Your task to perform on an android device: turn off data saver in the chrome app Image 0: 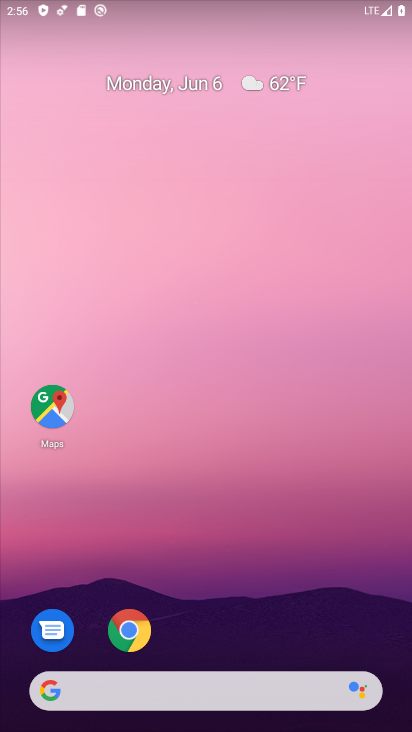
Step 0: press home button
Your task to perform on an android device: turn off data saver in the chrome app Image 1: 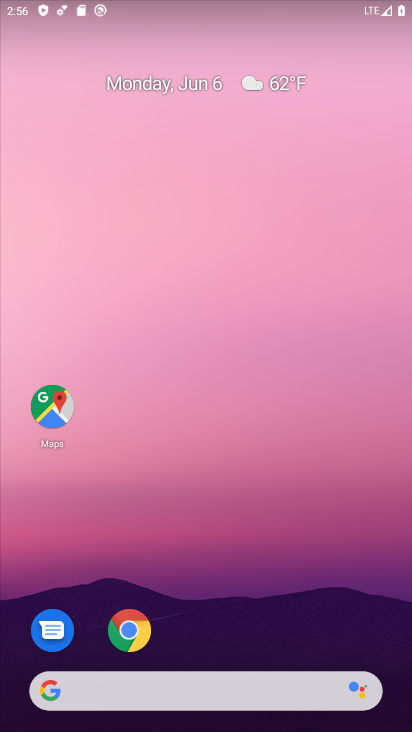
Step 1: click (121, 625)
Your task to perform on an android device: turn off data saver in the chrome app Image 2: 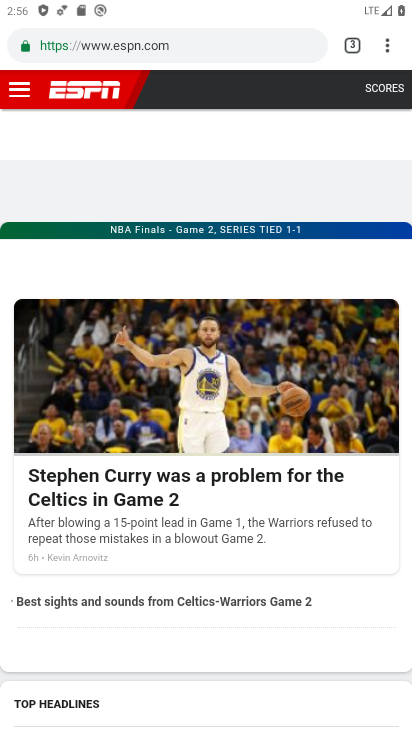
Step 2: drag from (389, 34) to (218, 539)
Your task to perform on an android device: turn off data saver in the chrome app Image 3: 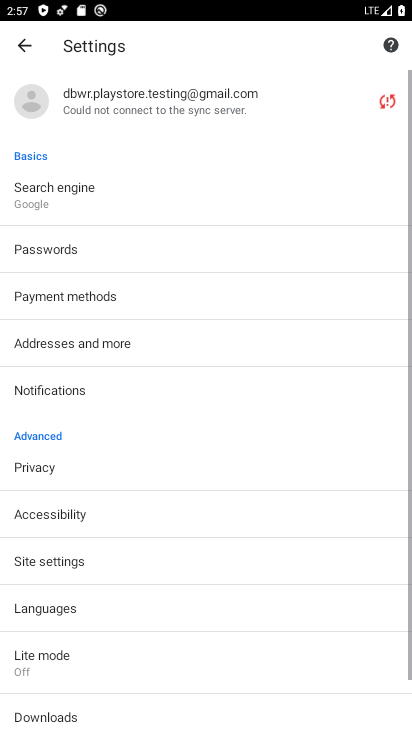
Step 3: drag from (170, 655) to (167, 599)
Your task to perform on an android device: turn off data saver in the chrome app Image 4: 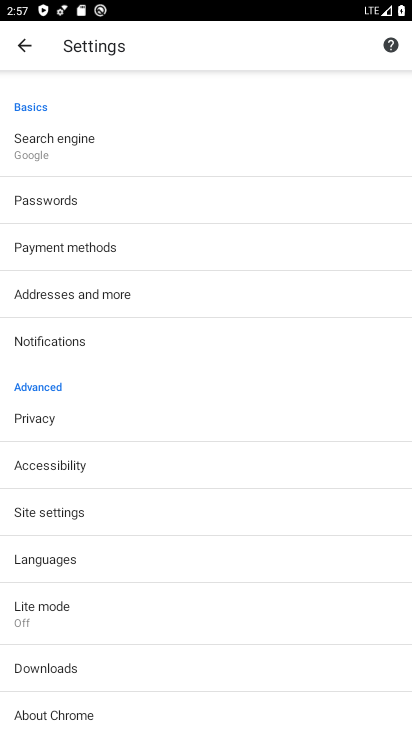
Step 4: click (90, 612)
Your task to perform on an android device: turn off data saver in the chrome app Image 5: 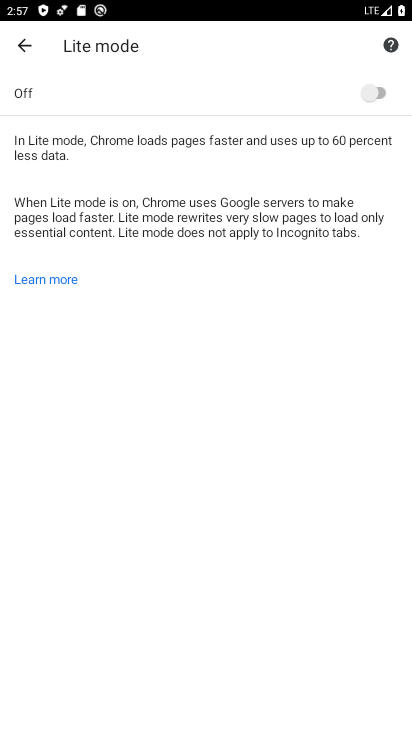
Step 5: click (357, 80)
Your task to perform on an android device: turn off data saver in the chrome app Image 6: 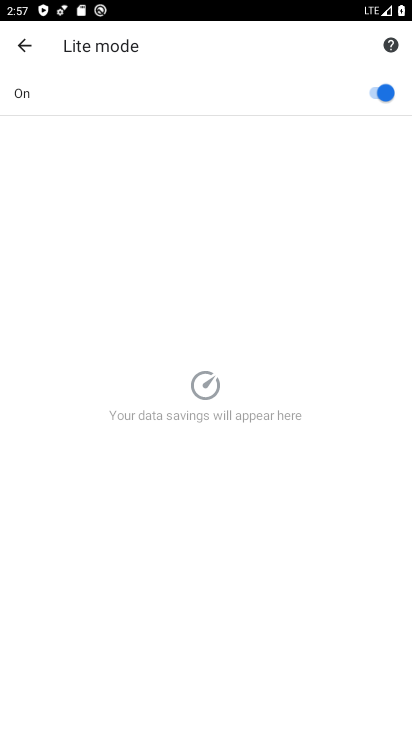
Step 6: task complete